Your task to perform on an android device: What's the weather going to be tomorrow? Image 0: 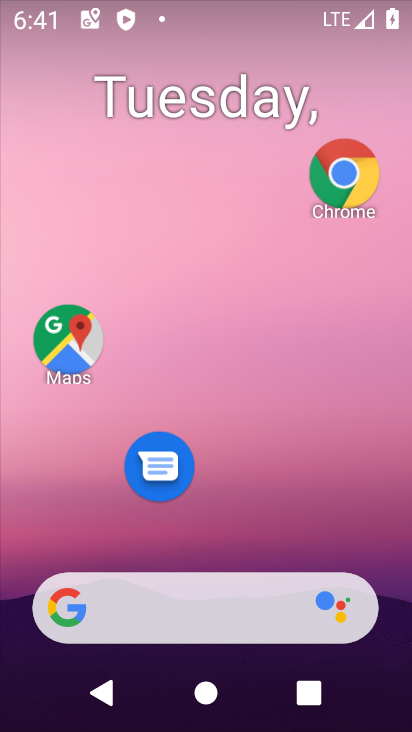
Step 0: press home button
Your task to perform on an android device: What's the weather going to be tomorrow? Image 1: 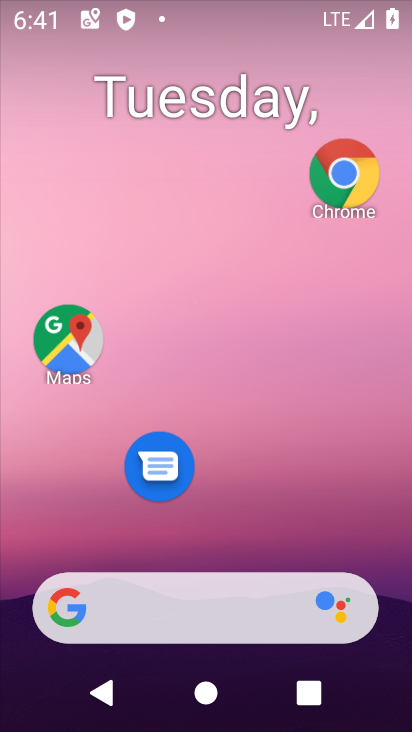
Step 1: click (357, 163)
Your task to perform on an android device: What's the weather going to be tomorrow? Image 2: 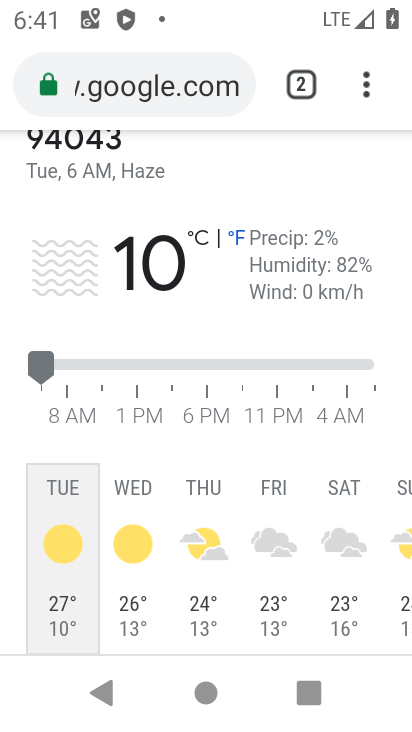
Step 2: click (250, 87)
Your task to perform on an android device: What's the weather going to be tomorrow? Image 3: 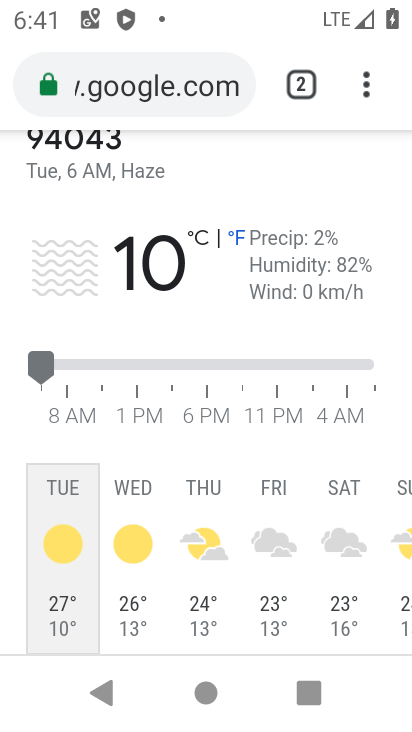
Step 3: click (213, 78)
Your task to perform on an android device: What's the weather going to be tomorrow? Image 4: 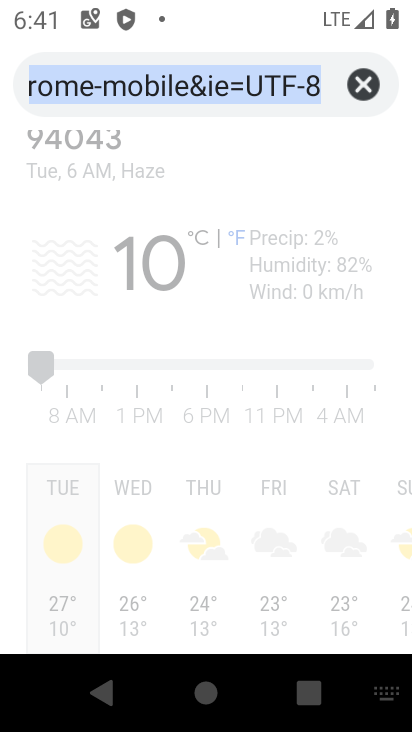
Step 4: click (358, 81)
Your task to perform on an android device: What's the weather going to be tomorrow? Image 5: 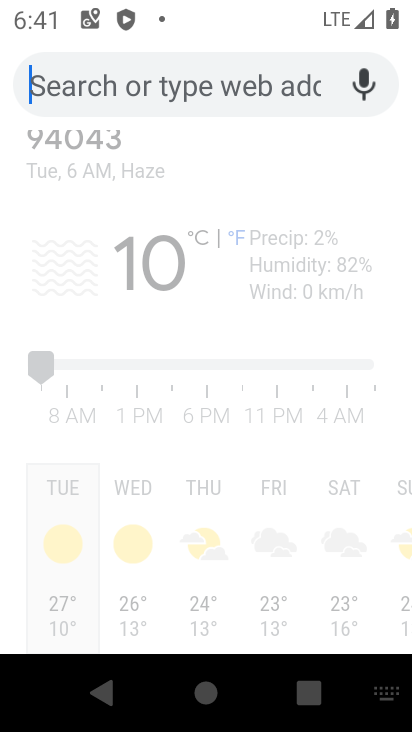
Step 5: type " What's the weather going to be tomorrow?"
Your task to perform on an android device: What's the weather going to be tomorrow? Image 6: 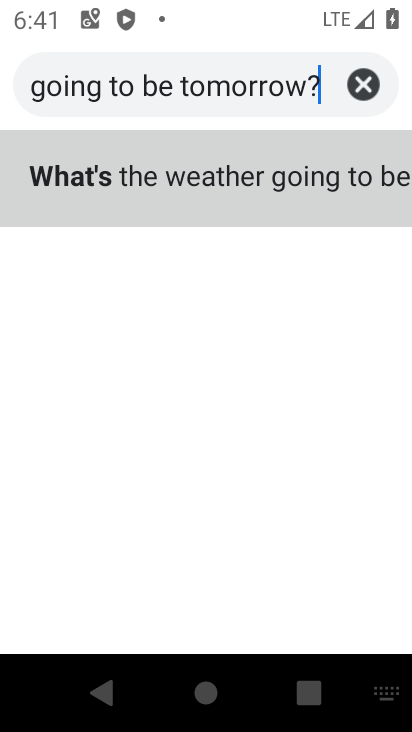
Step 6: click (365, 174)
Your task to perform on an android device: What's the weather going to be tomorrow? Image 7: 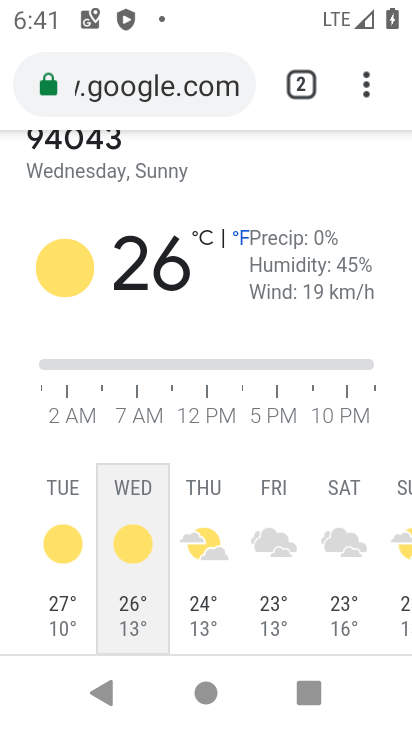
Step 7: task complete